Your task to perform on an android device: Open Wikipedia Image 0: 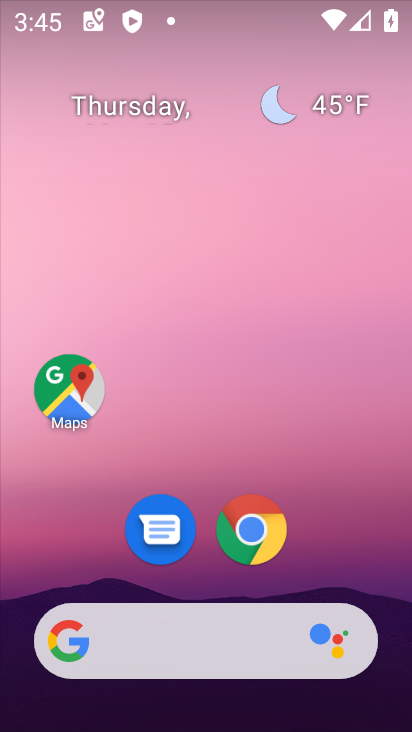
Step 0: drag from (343, 518) to (345, 1)
Your task to perform on an android device: Open Wikipedia Image 1: 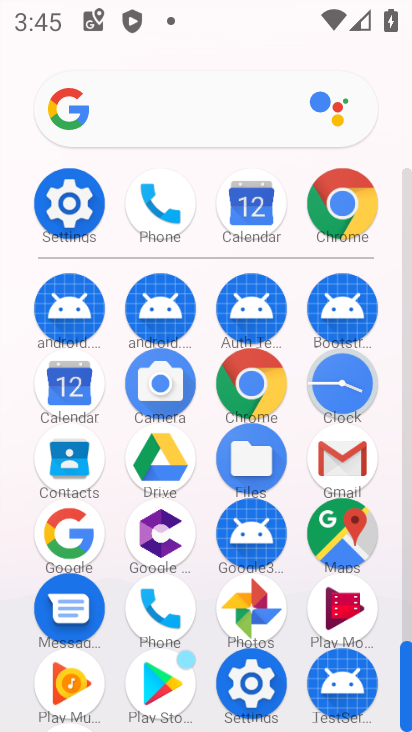
Step 1: click (355, 218)
Your task to perform on an android device: Open Wikipedia Image 2: 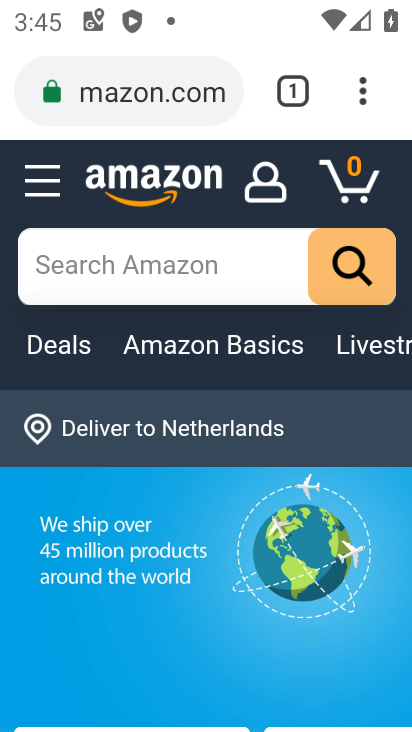
Step 2: click (169, 97)
Your task to perform on an android device: Open Wikipedia Image 3: 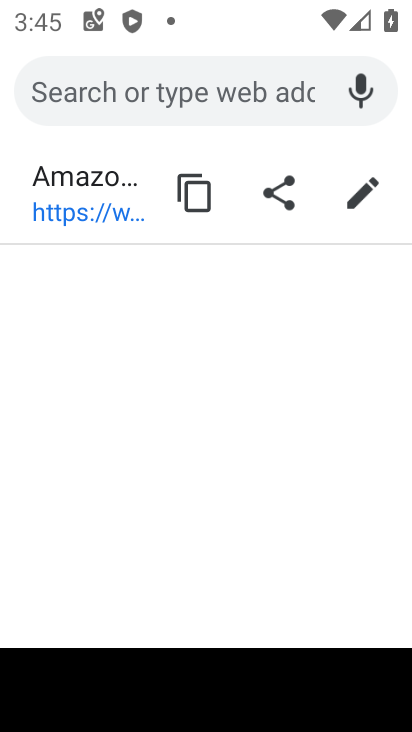
Step 3: type "wikipedia"
Your task to perform on an android device: Open Wikipedia Image 4: 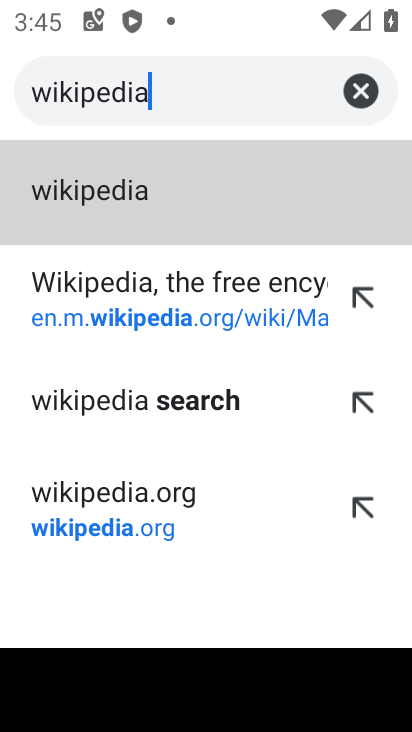
Step 4: click (150, 210)
Your task to perform on an android device: Open Wikipedia Image 5: 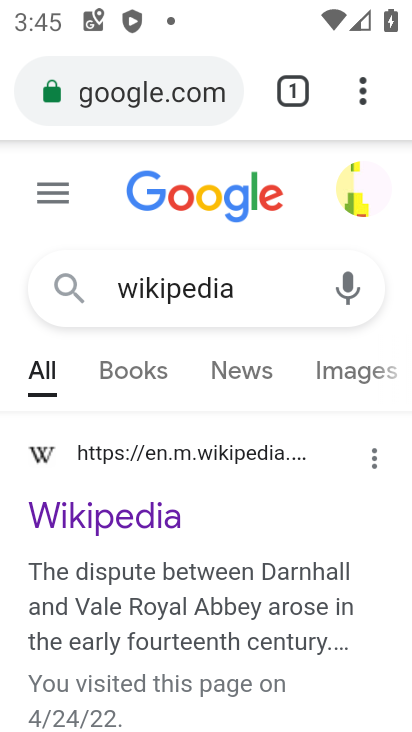
Step 5: click (125, 499)
Your task to perform on an android device: Open Wikipedia Image 6: 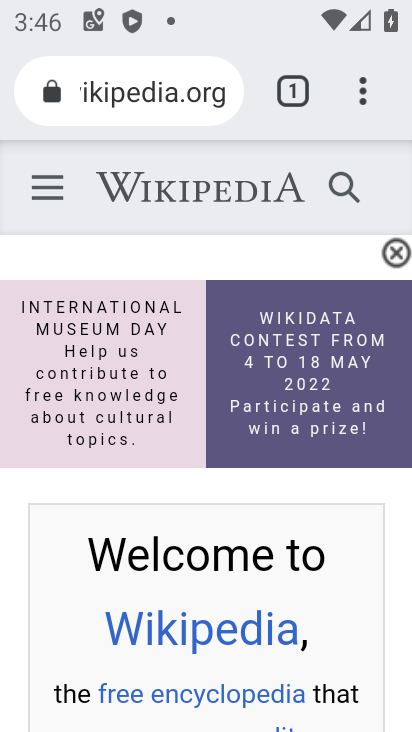
Step 6: task complete